Your task to perform on an android device: When is my next meeting? Image 0: 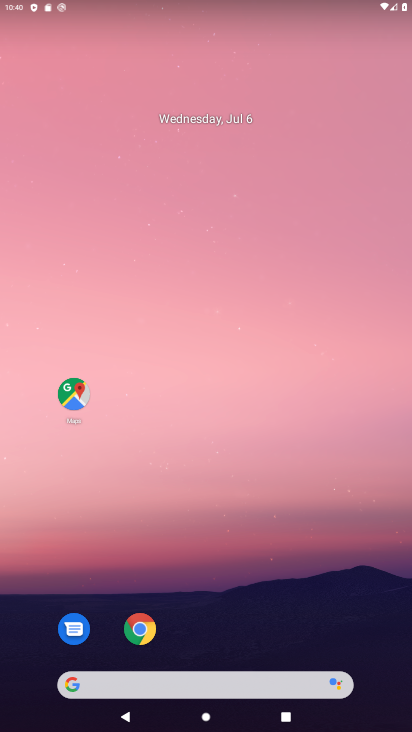
Step 0: drag from (266, 633) to (103, 203)
Your task to perform on an android device: When is my next meeting? Image 1: 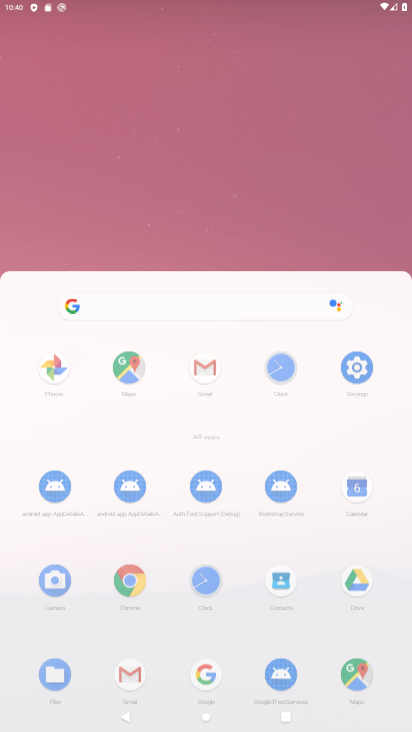
Step 1: drag from (215, 605) to (68, 79)
Your task to perform on an android device: When is my next meeting? Image 2: 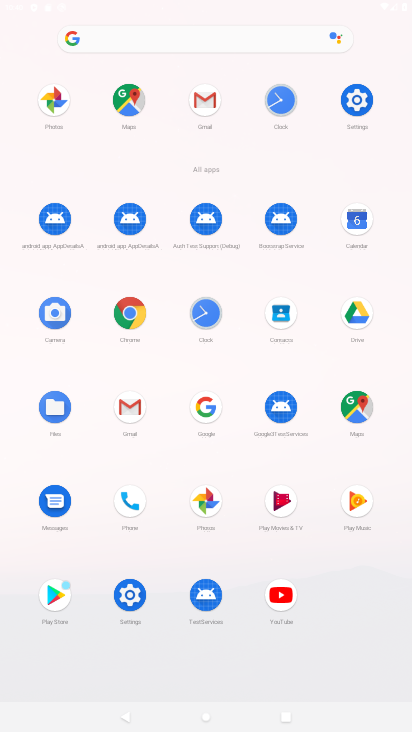
Step 2: drag from (186, 492) to (30, 18)
Your task to perform on an android device: When is my next meeting? Image 3: 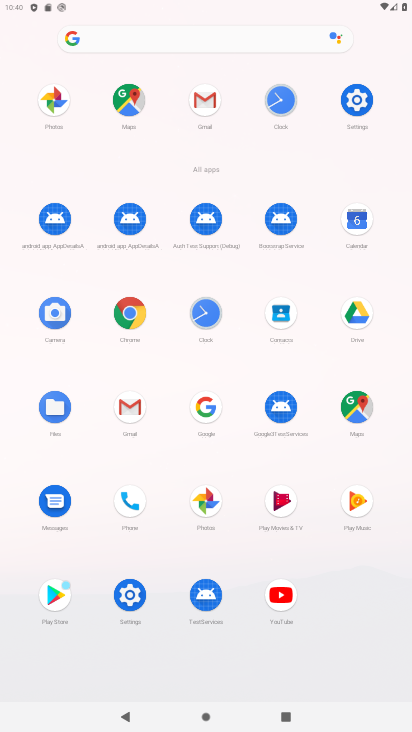
Step 3: drag from (213, 589) to (102, 115)
Your task to perform on an android device: When is my next meeting? Image 4: 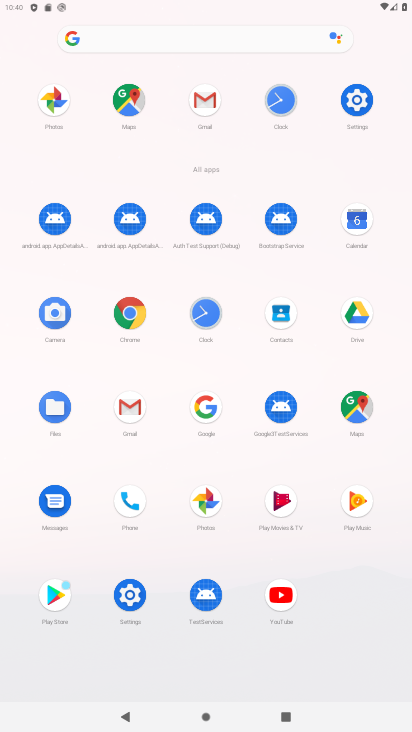
Step 4: click (365, 209)
Your task to perform on an android device: When is my next meeting? Image 5: 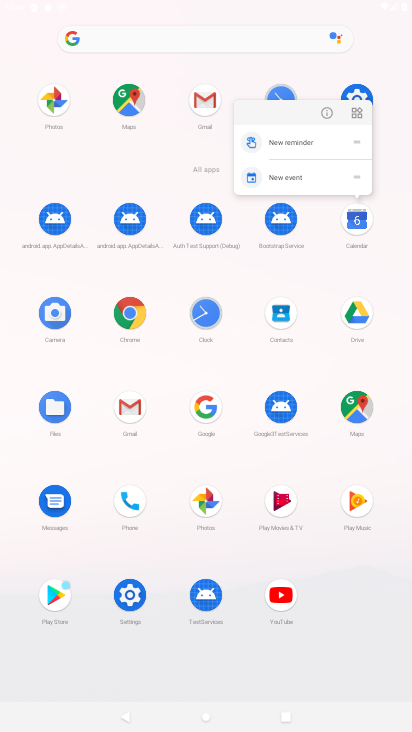
Step 5: click (348, 230)
Your task to perform on an android device: When is my next meeting? Image 6: 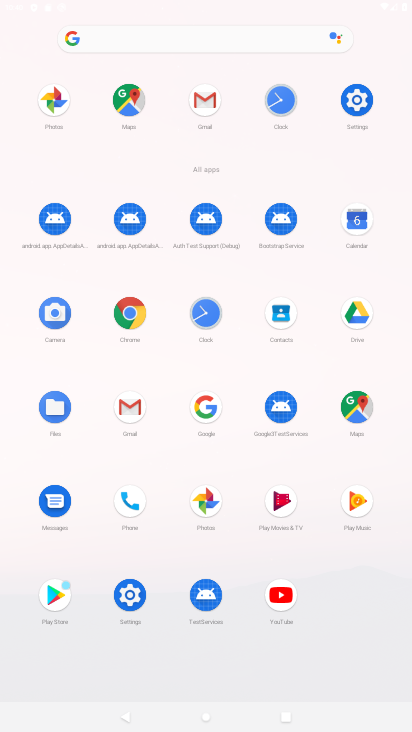
Step 6: click (350, 234)
Your task to perform on an android device: When is my next meeting? Image 7: 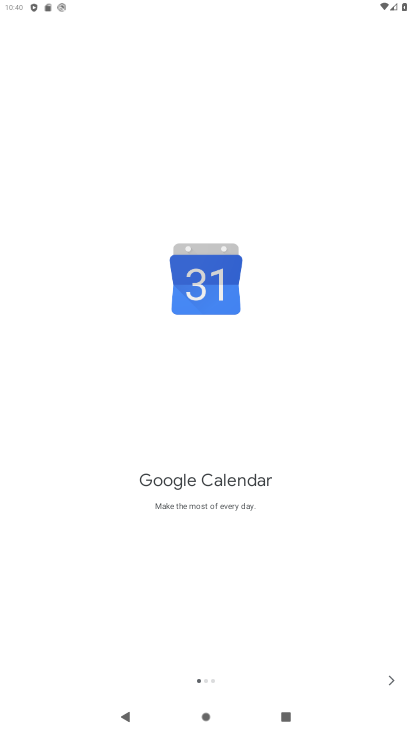
Step 7: click (350, 231)
Your task to perform on an android device: When is my next meeting? Image 8: 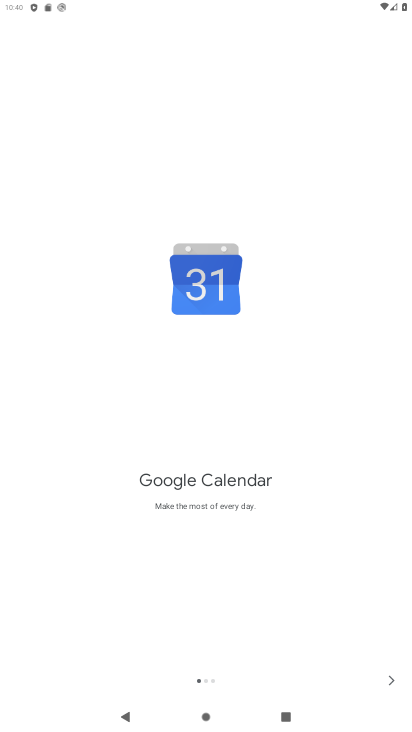
Step 8: click (350, 228)
Your task to perform on an android device: When is my next meeting? Image 9: 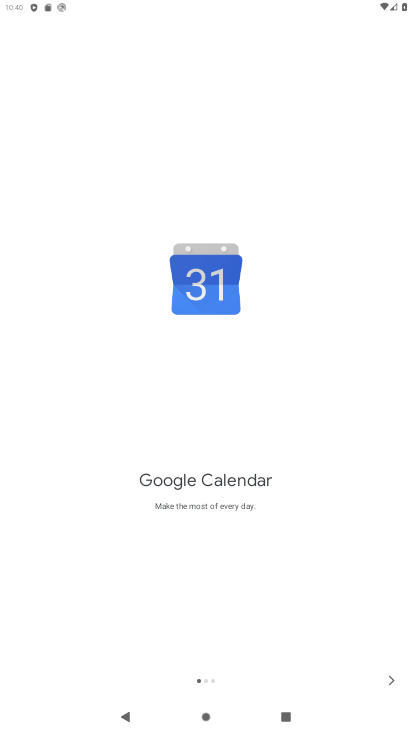
Step 9: click (354, 228)
Your task to perform on an android device: When is my next meeting? Image 10: 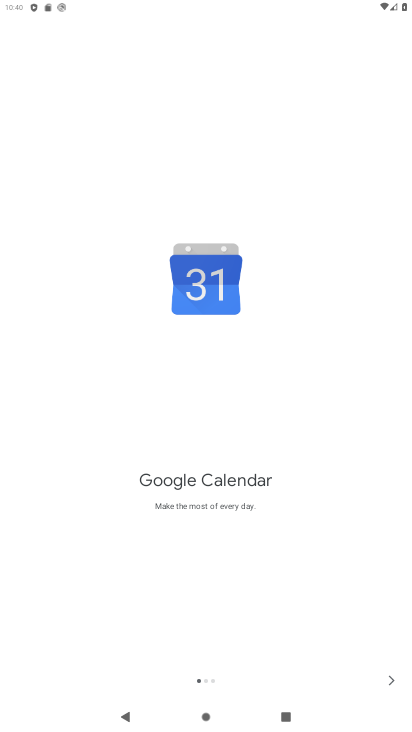
Step 10: click (221, 499)
Your task to perform on an android device: When is my next meeting? Image 11: 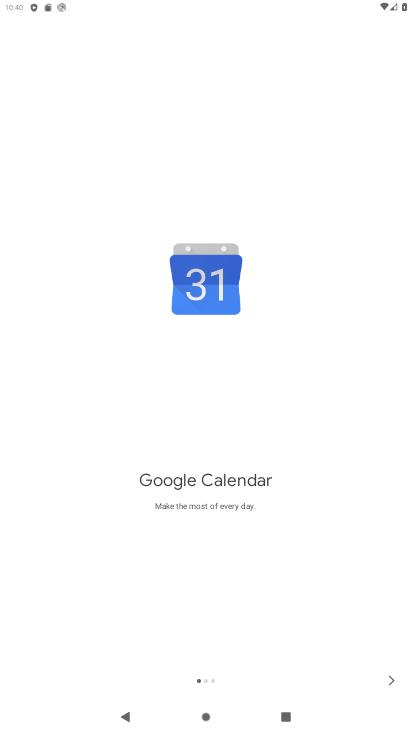
Step 11: click (222, 498)
Your task to perform on an android device: When is my next meeting? Image 12: 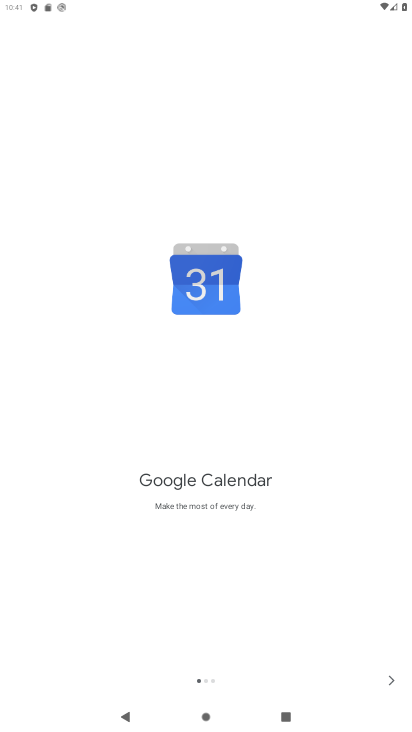
Step 12: click (393, 681)
Your task to perform on an android device: When is my next meeting? Image 13: 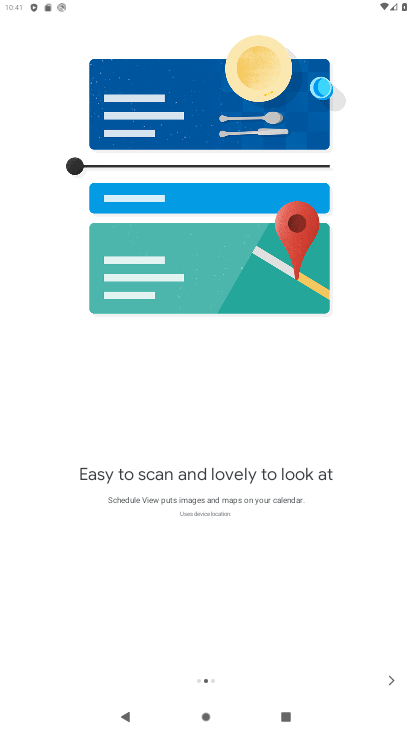
Step 13: task complete